Your task to perform on an android device: find which apps use the phone's location Image 0: 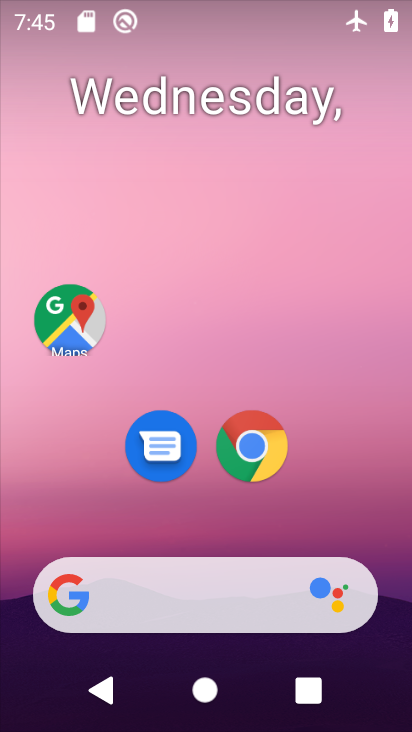
Step 0: press home button
Your task to perform on an android device: find which apps use the phone's location Image 1: 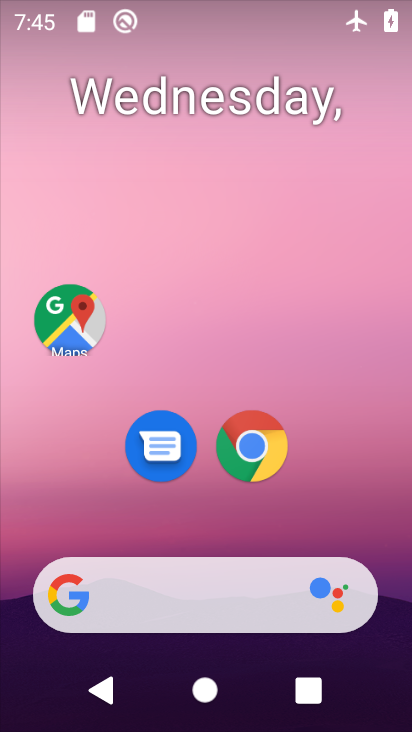
Step 1: drag from (212, 531) to (206, 10)
Your task to perform on an android device: find which apps use the phone's location Image 2: 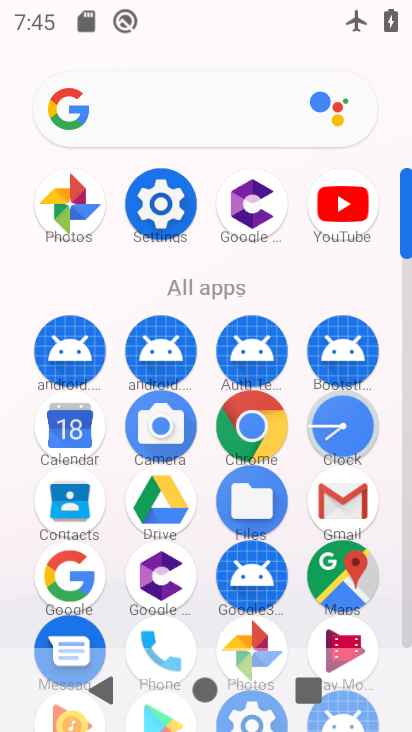
Step 2: click (151, 181)
Your task to perform on an android device: find which apps use the phone's location Image 3: 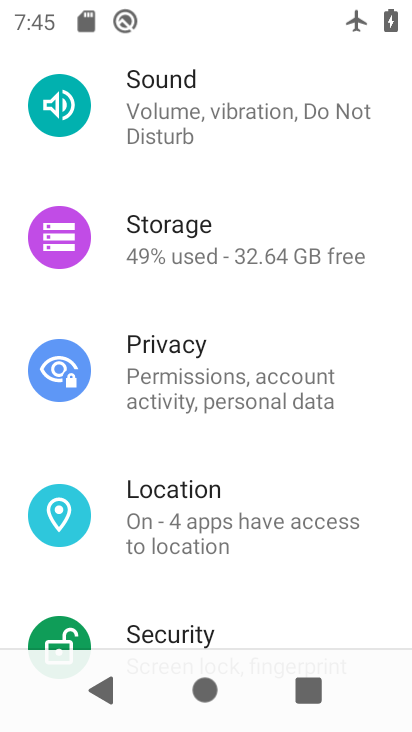
Step 3: click (199, 523)
Your task to perform on an android device: find which apps use the phone's location Image 4: 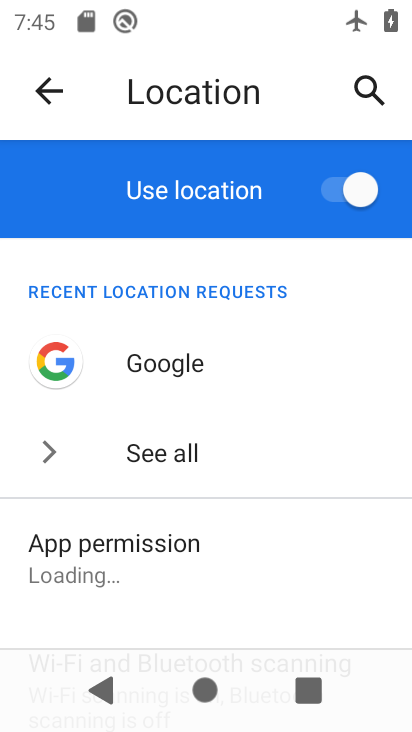
Step 4: click (171, 565)
Your task to perform on an android device: find which apps use the phone's location Image 5: 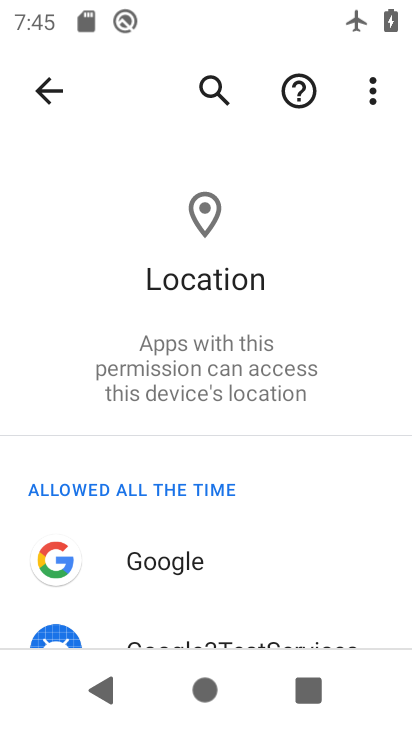
Step 5: task complete